Your task to perform on an android device: Open Google Maps Image 0: 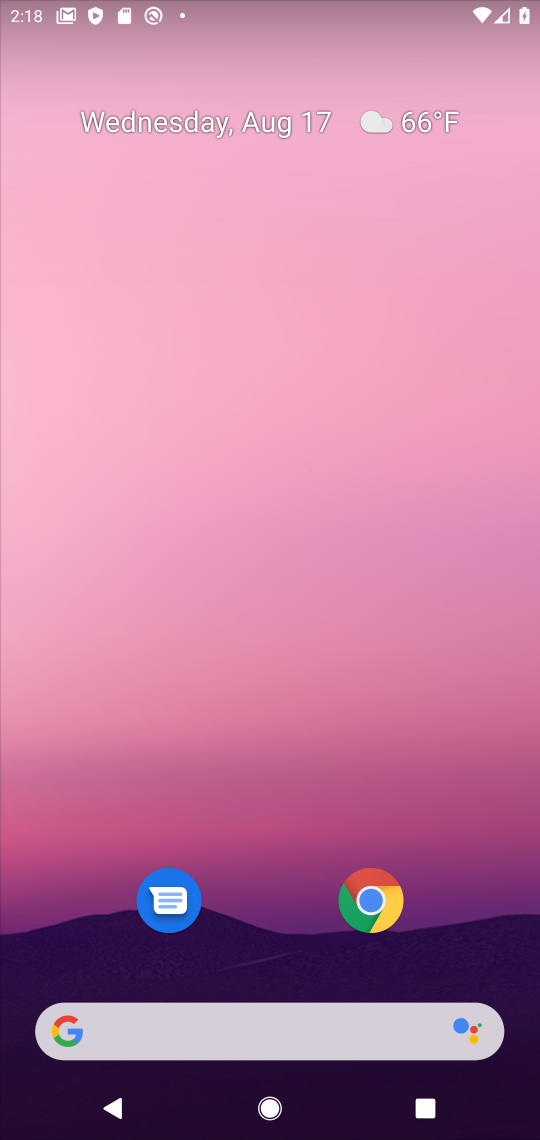
Step 0: press home button
Your task to perform on an android device: Open Google Maps Image 1: 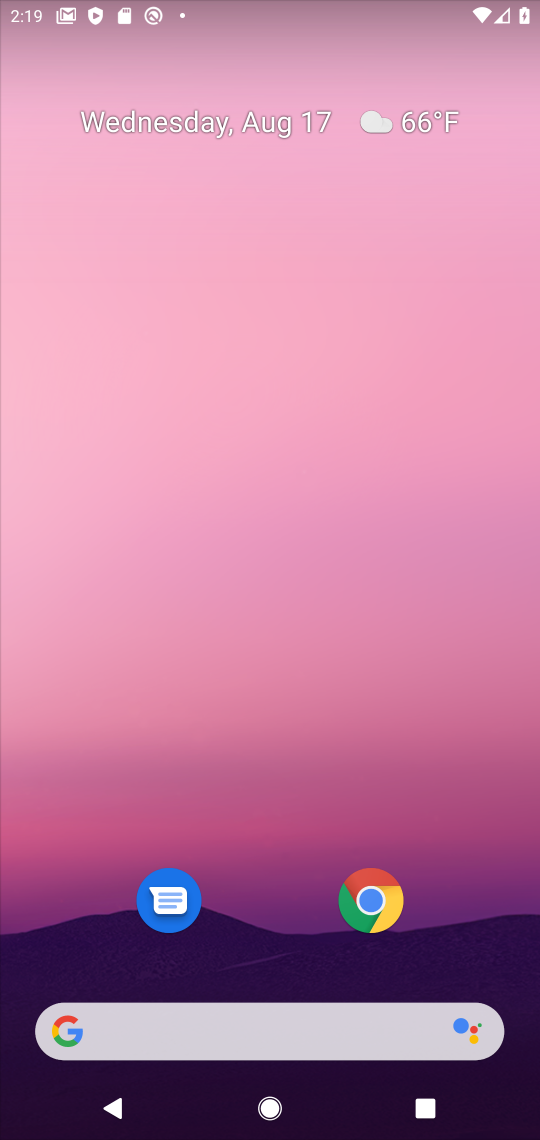
Step 1: drag from (237, 1034) to (359, 168)
Your task to perform on an android device: Open Google Maps Image 2: 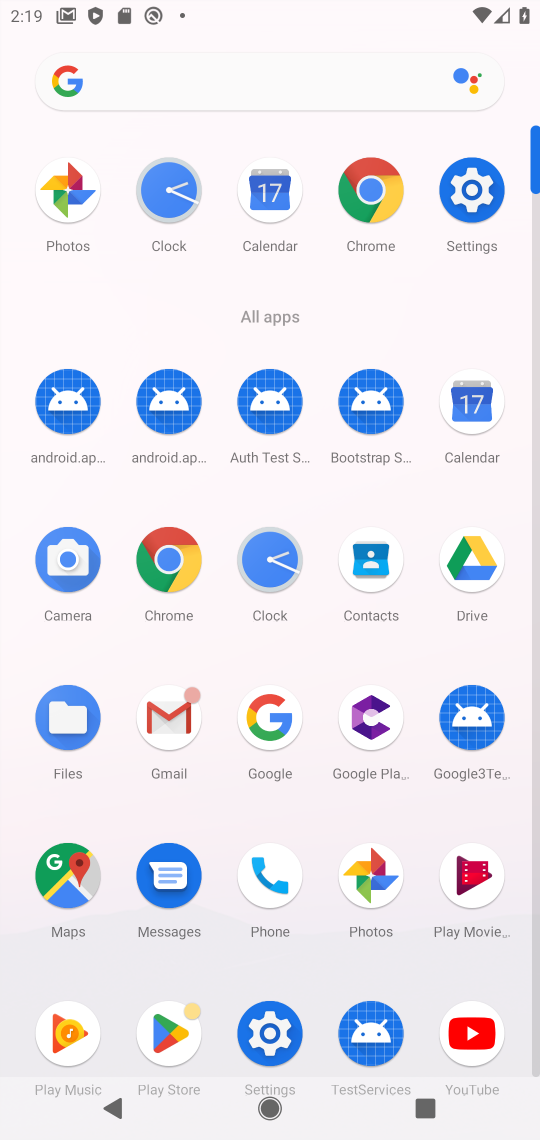
Step 2: click (82, 868)
Your task to perform on an android device: Open Google Maps Image 3: 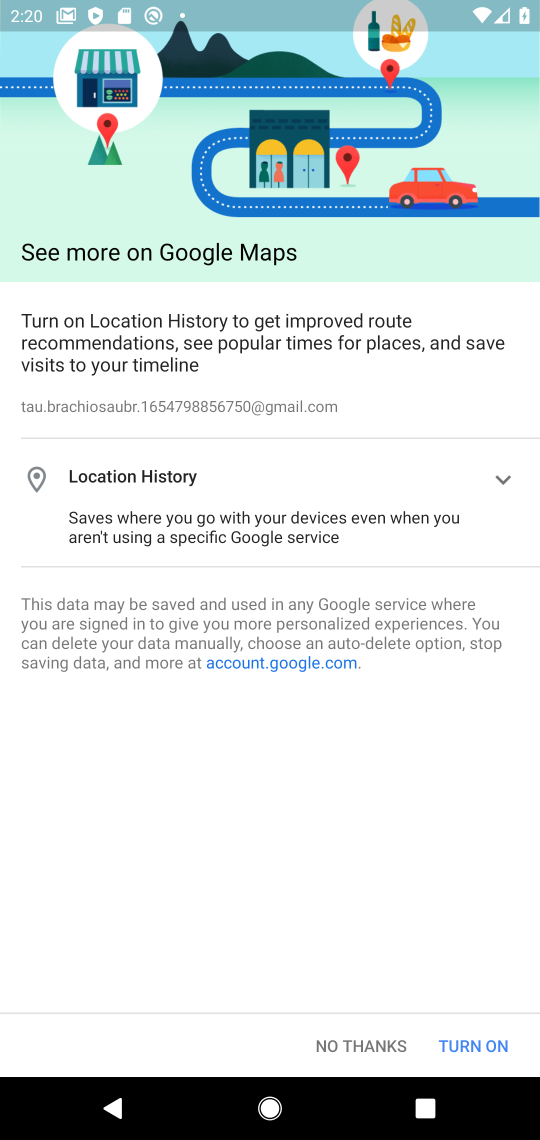
Step 3: click (341, 1055)
Your task to perform on an android device: Open Google Maps Image 4: 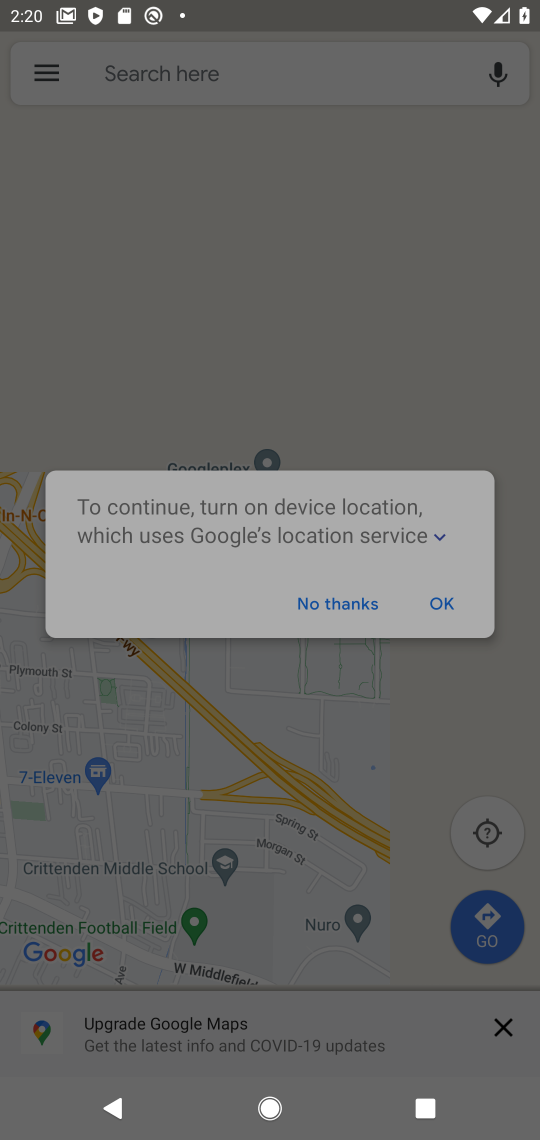
Step 4: click (441, 599)
Your task to perform on an android device: Open Google Maps Image 5: 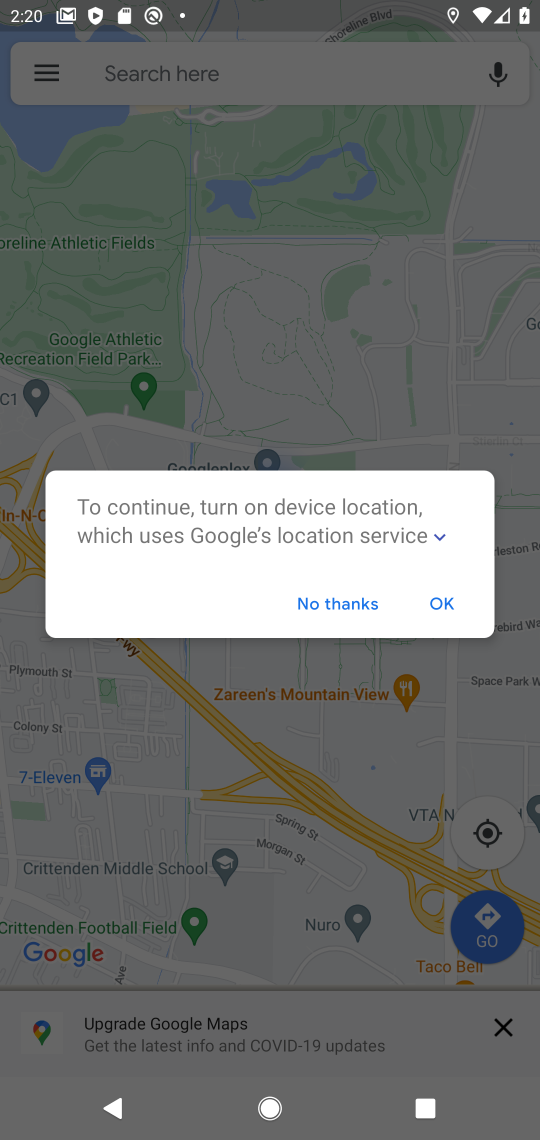
Step 5: click (441, 607)
Your task to perform on an android device: Open Google Maps Image 6: 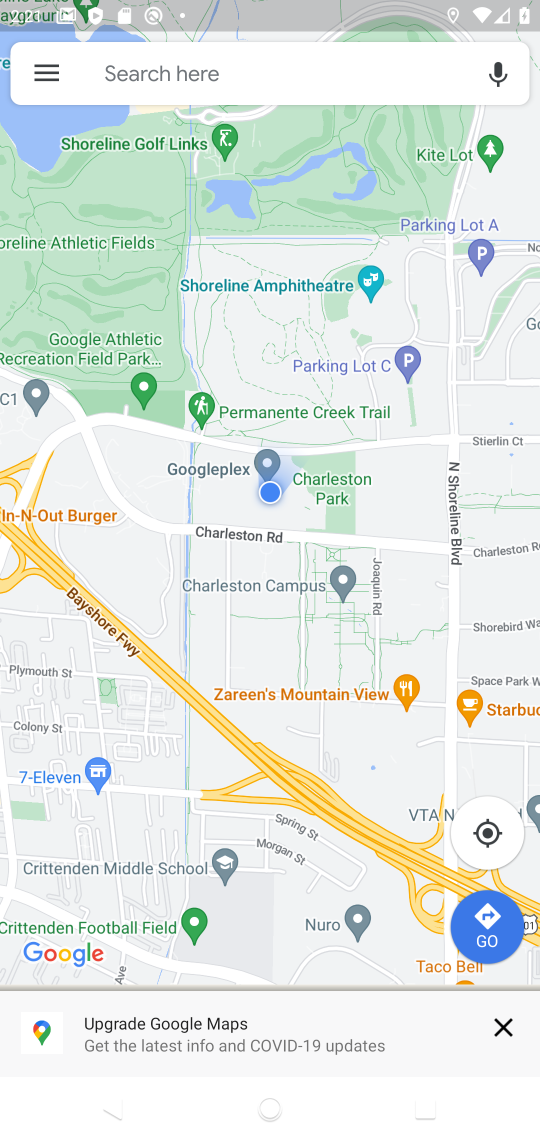
Step 6: task complete